Your task to perform on an android device: search for starred emails in the gmail app Image 0: 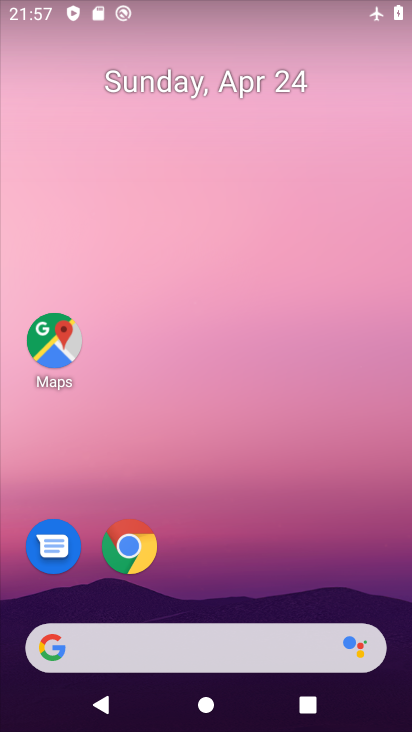
Step 0: drag from (260, 549) to (293, 164)
Your task to perform on an android device: search for starred emails in the gmail app Image 1: 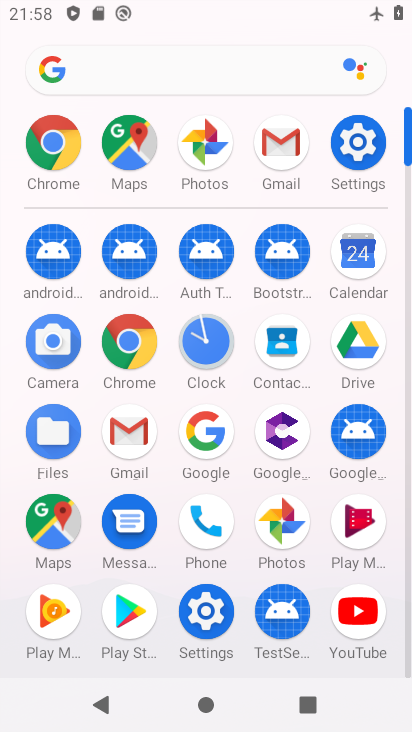
Step 1: click (119, 419)
Your task to perform on an android device: search for starred emails in the gmail app Image 2: 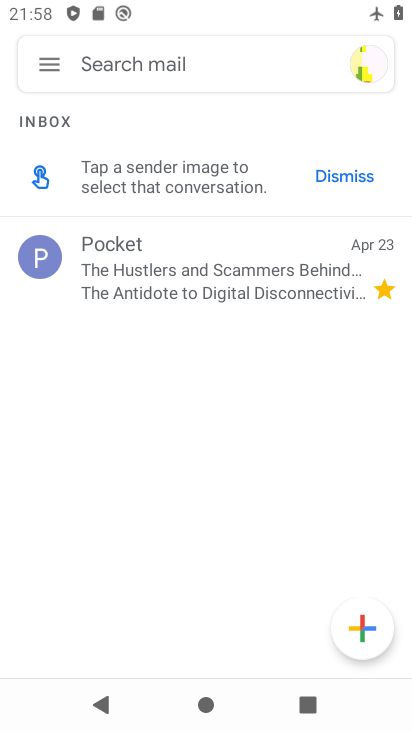
Step 2: click (55, 60)
Your task to perform on an android device: search for starred emails in the gmail app Image 3: 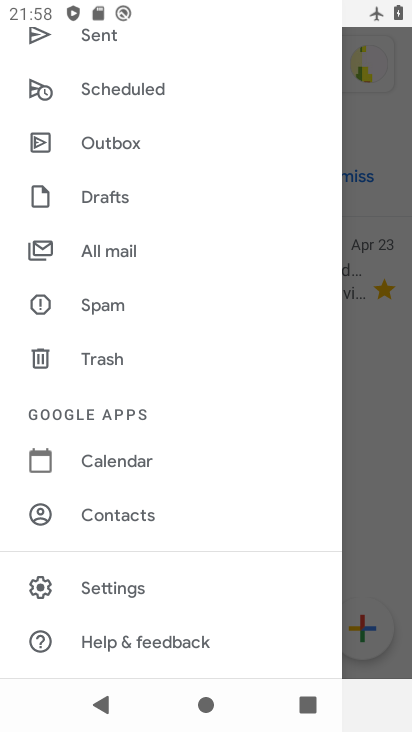
Step 3: click (134, 589)
Your task to perform on an android device: search for starred emails in the gmail app Image 4: 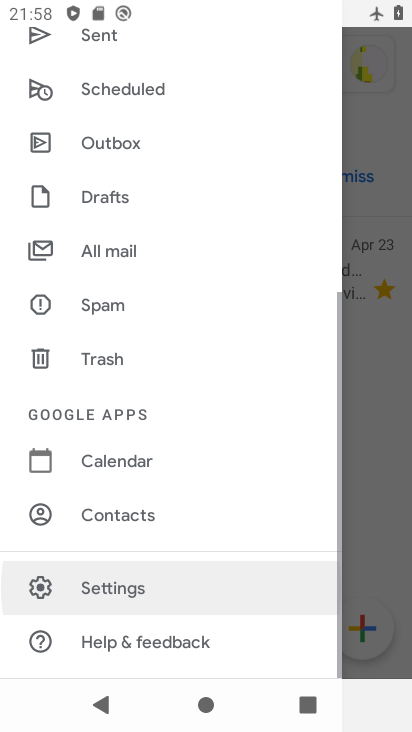
Step 4: drag from (134, 589) to (142, 164)
Your task to perform on an android device: search for starred emails in the gmail app Image 5: 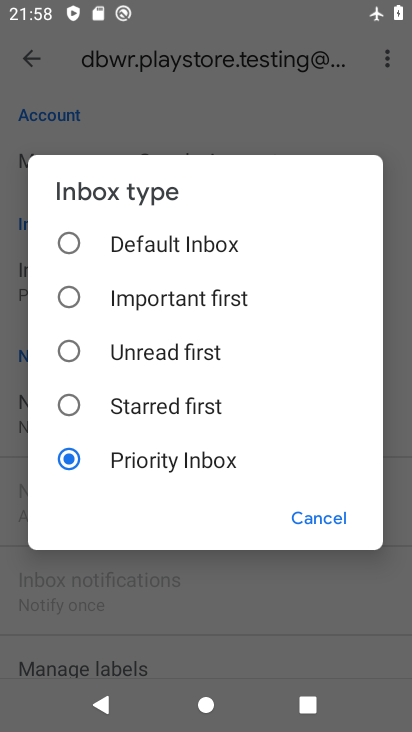
Step 5: press back button
Your task to perform on an android device: search for starred emails in the gmail app Image 6: 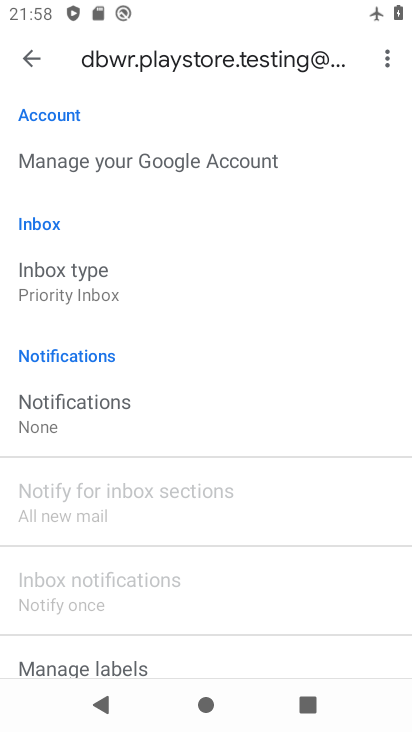
Step 6: press back button
Your task to perform on an android device: search for starred emails in the gmail app Image 7: 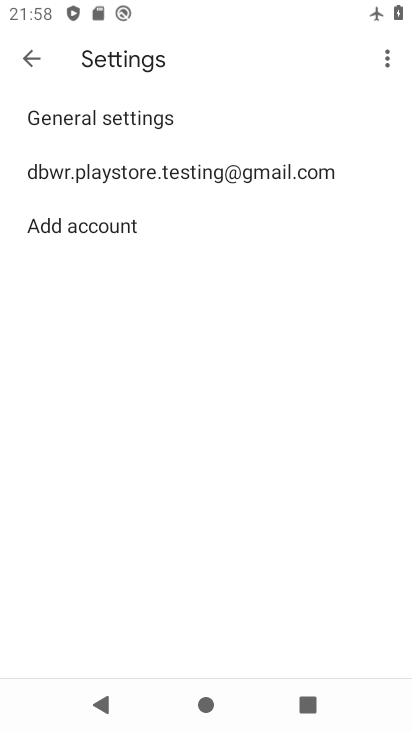
Step 7: press back button
Your task to perform on an android device: search for starred emails in the gmail app Image 8: 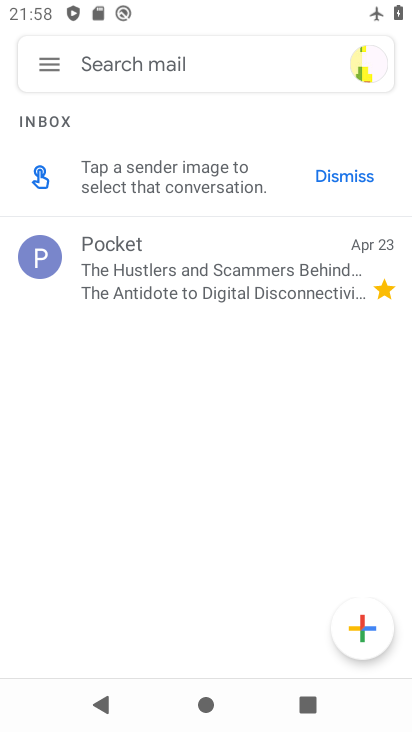
Step 8: press back button
Your task to perform on an android device: search for starred emails in the gmail app Image 9: 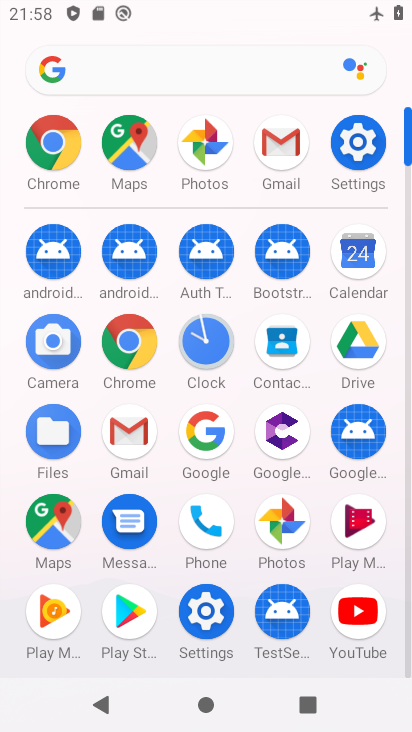
Step 9: click (277, 142)
Your task to perform on an android device: search for starred emails in the gmail app Image 10: 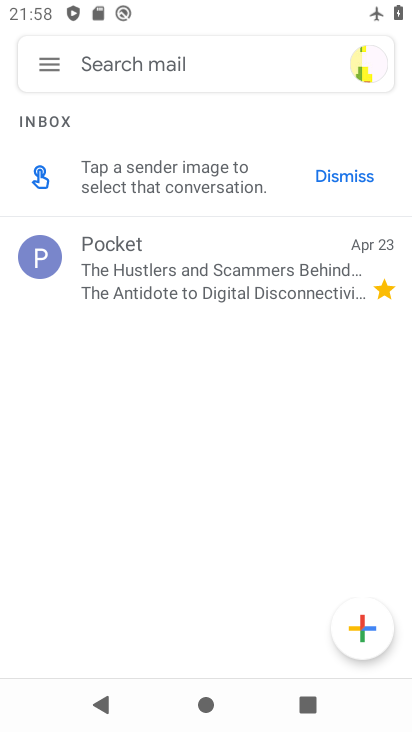
Step 10: click (40, 53)
Your task to perform on an android device: search for starred emails in the gmail app Image 11: 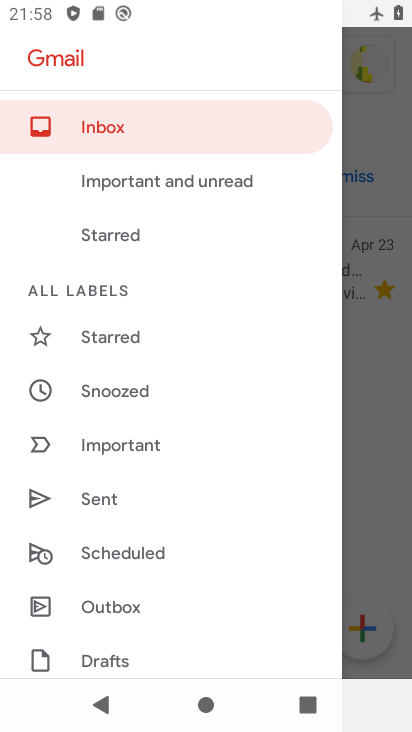
Step 11: click (140, 235)
Your task to perform on an android device: search for starred emails in the gmail app Image 12: 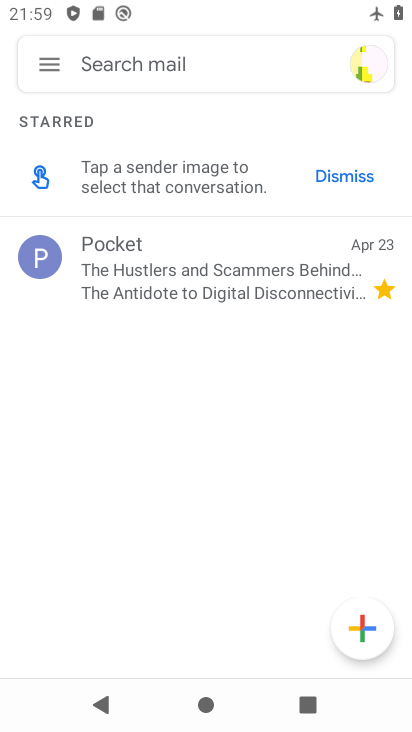
Step 12: task complete